Your task to perform on an android device: turn off picture-in-picture Image 0: 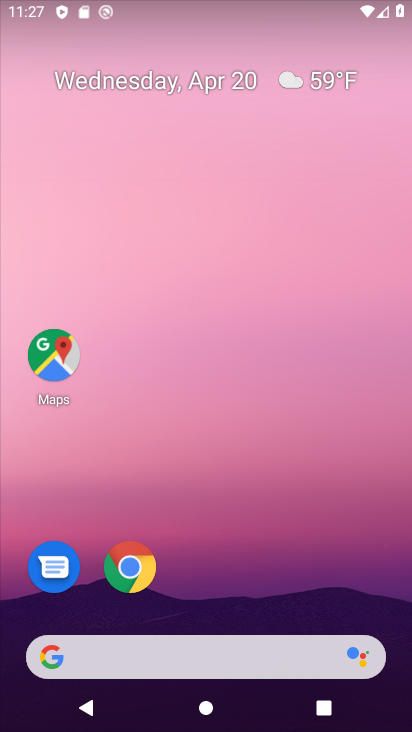
Step 0: click (137, 561)
Your task to perform on an android device: turn off picture-in-picture Image 1: 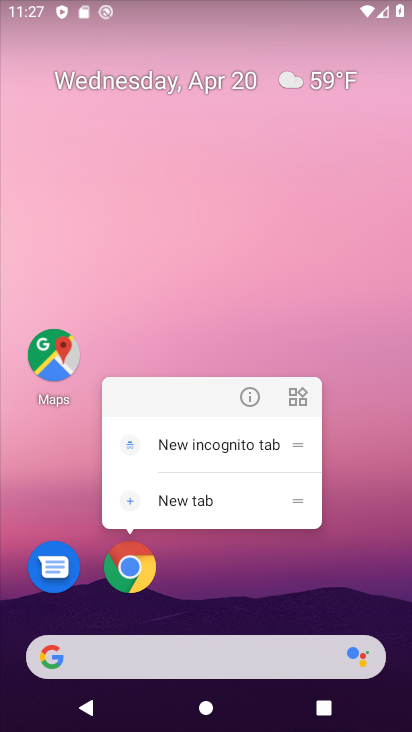
Step 1: click (256, 389)
Your task to perform on an android device: turn off picture-in-picture Image 2: 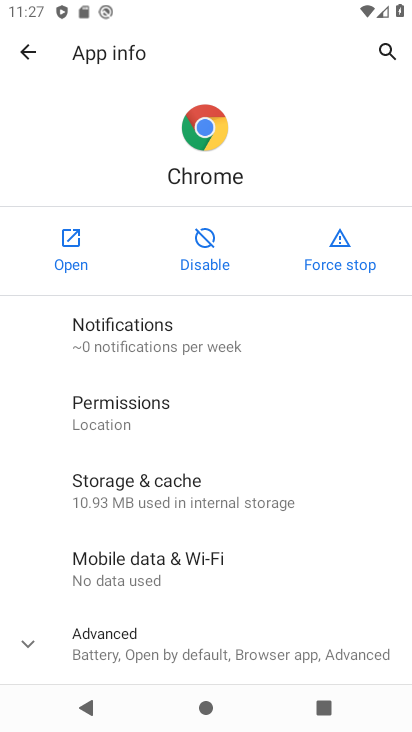
Step 2: click (127, 656)
Your task to perform on an android device: turn off picture-in-picture Image 3: 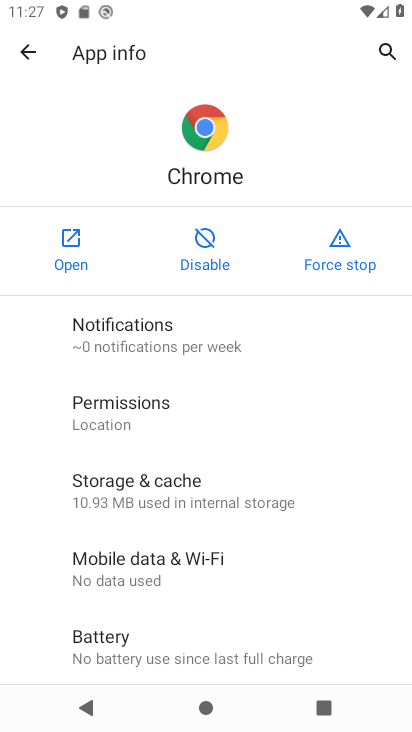
Step 3: drag from (109, 639) to (97, 403)
Your task to perform on an android device: turn off picture-in-picture Image 4: 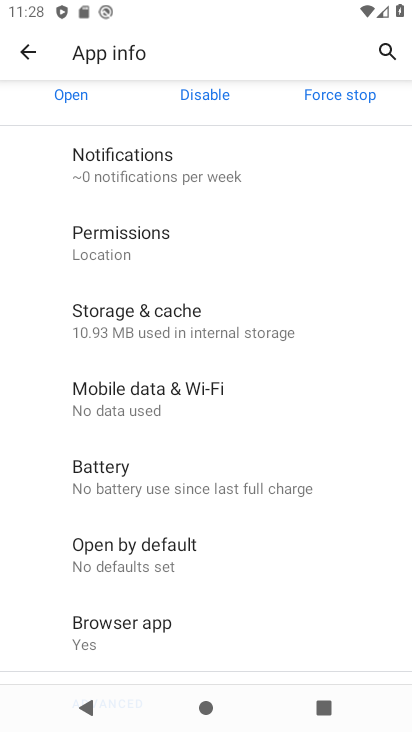
Step 4: drag from (139, 558) to (105, 377)
Your task to perform on an android device: turn off picture-in-picture Image 5: 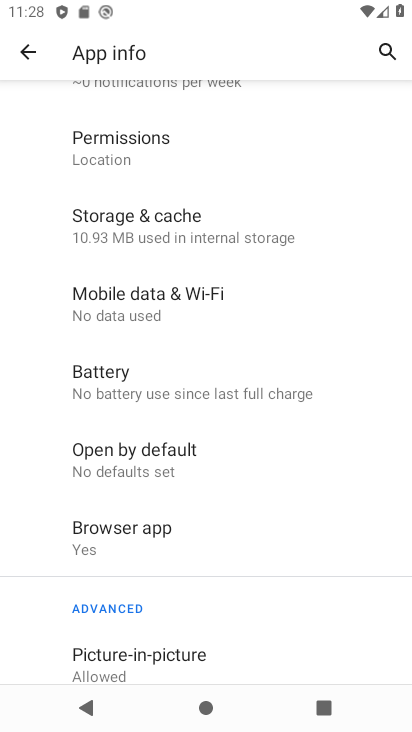
Step 5: drag from (143, 463) to (116, 247)
Your task to perform on an android device: turn off picture-in-picture Image 6: 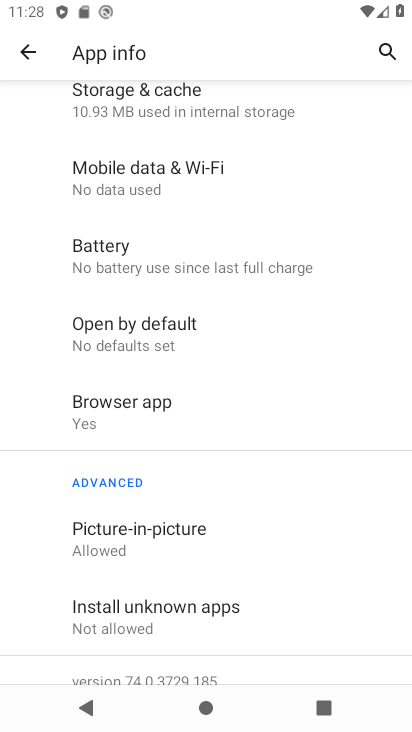
Step 6: click (172, 543)
Your task to perform on an android device: turn off picture-in-picture Image 7: 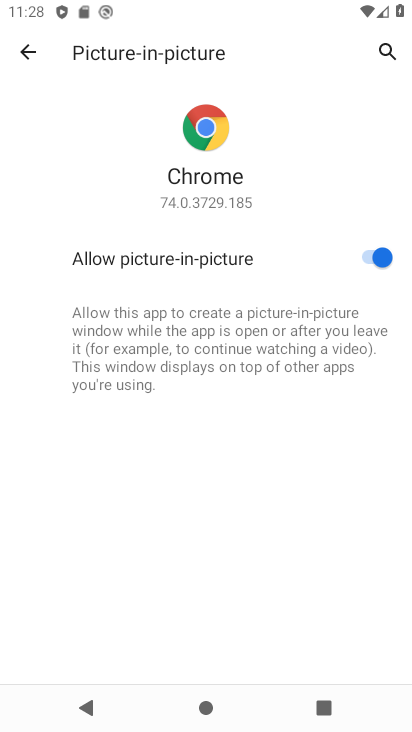
Step 7: click (353, 256)
Your task to perform on an android device: turn off picture-in-picture Image 8: 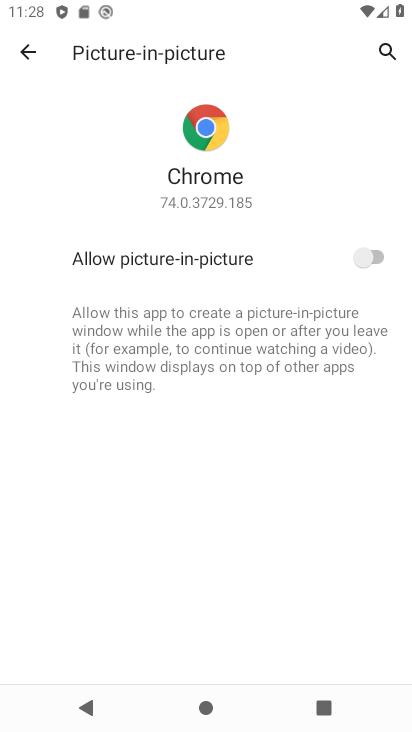
Step 8: task complete